Your task to perform on an android device: change the clock display to digital Image 0: 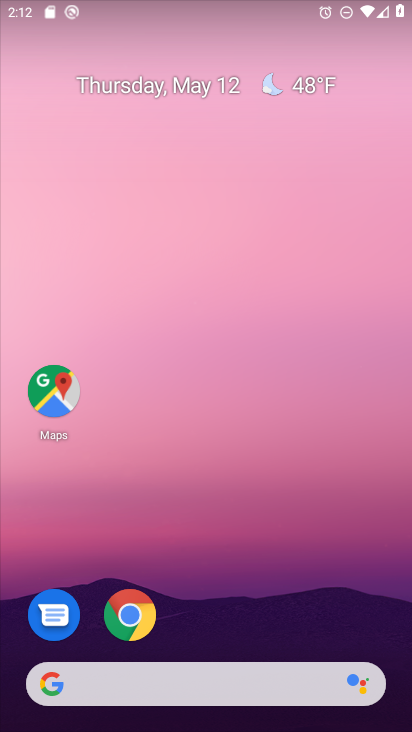
Step 0: drag from (302, 643) to (394, 9)
Your task to perform on an android device: change the clock display to digital Image 1: 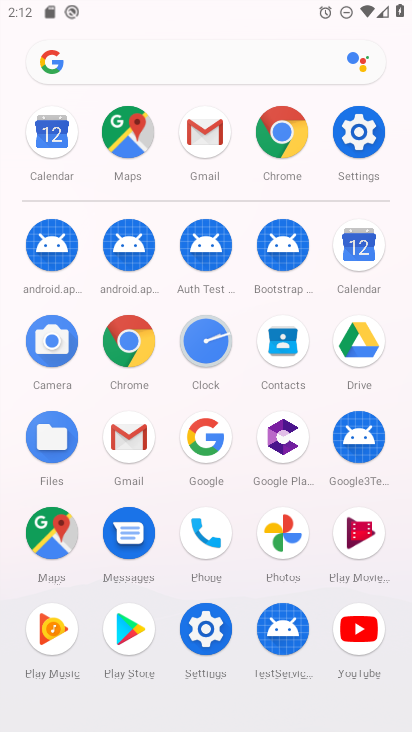
Step 1: click (198, 346)
Your task to perform on an android device: change the clock display to digital Image 2: 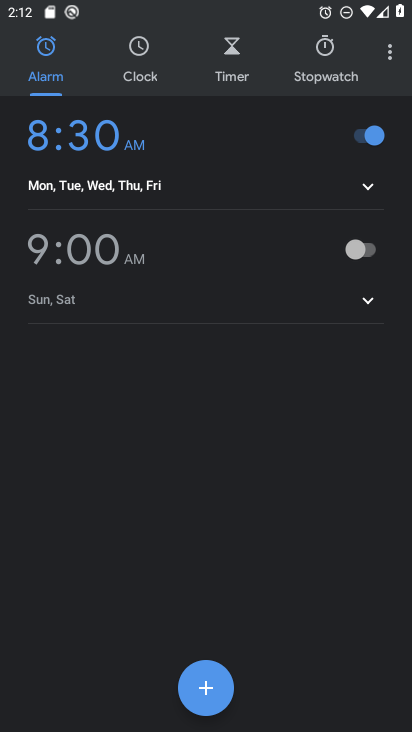
Step 2: click (389, 57)
Your task to perform on an android device: change the clock display to digital Image 3: 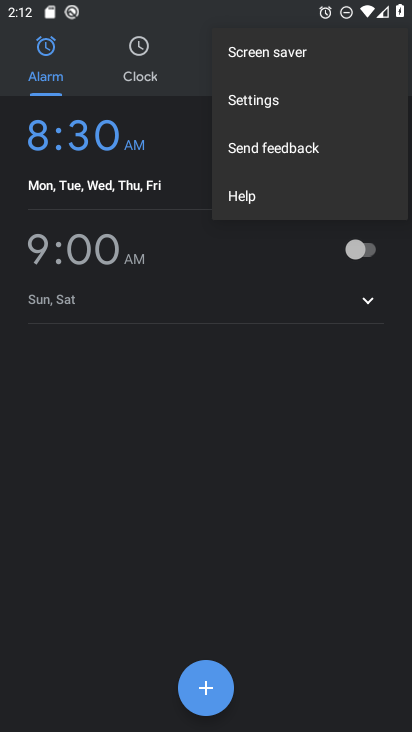
Step 3: click (336, 110)
Your task to perform on an android device: change the clock display to digital Image 4: 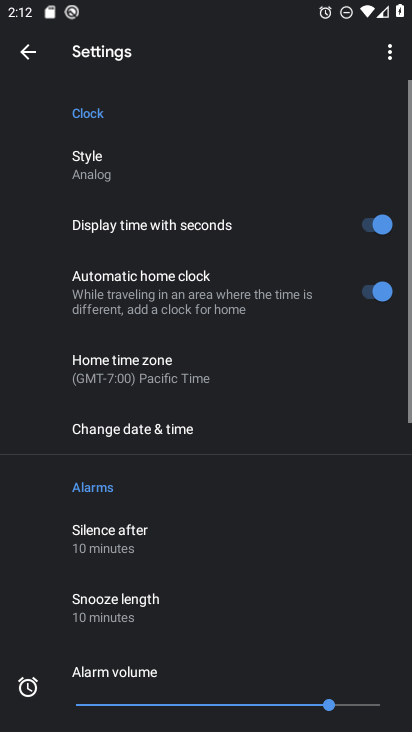
Step 4: click (138, 167)
Your task to perform on an android device: change the clock display to digital Image 5: 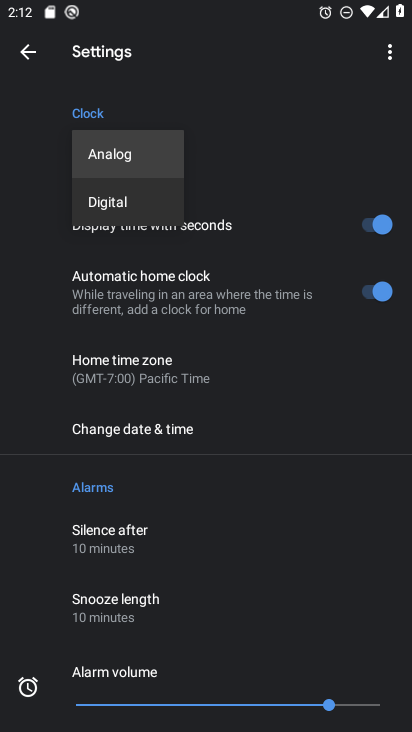
Step 5: click (106, 217)
Your task to perform on an android device: change the clock display to digital Image 6: 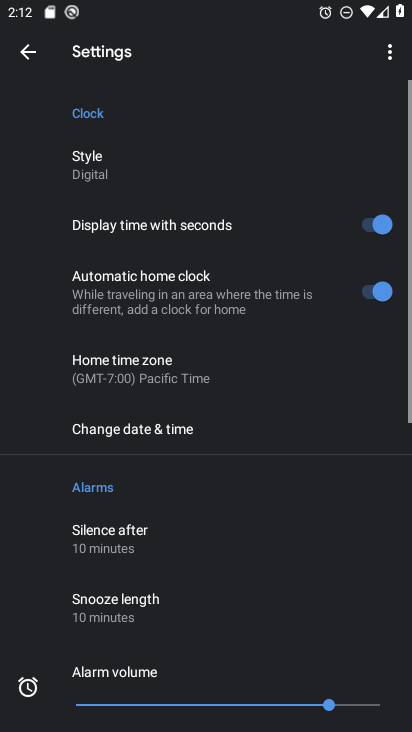
Step 6: task complete